Your task to perform on an android device: Open accessibility settings Image 0: 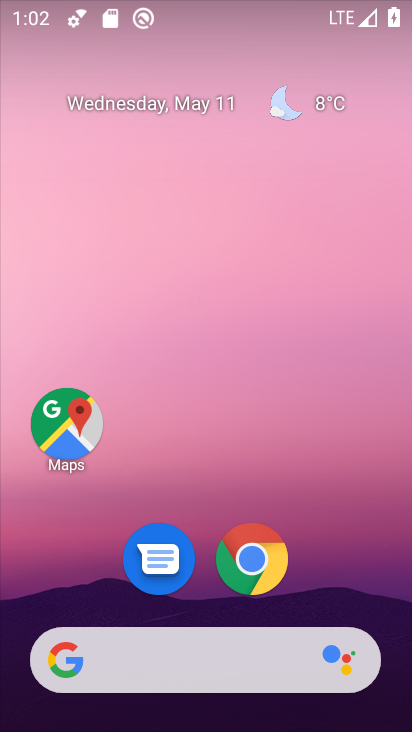
Step 0: drag from (221, 720) to (170, 182)
Your task to perform on an android device: Open accessibility settings Image 1: 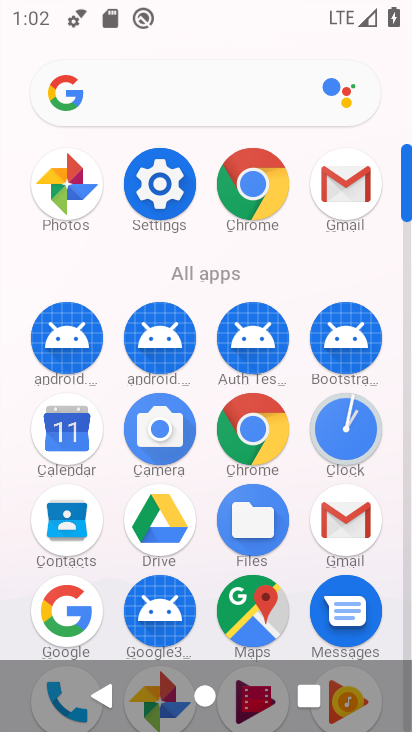
Step 1: click (170, 196)
Your task to perform on an android device: Open accessibility settings Image 2: 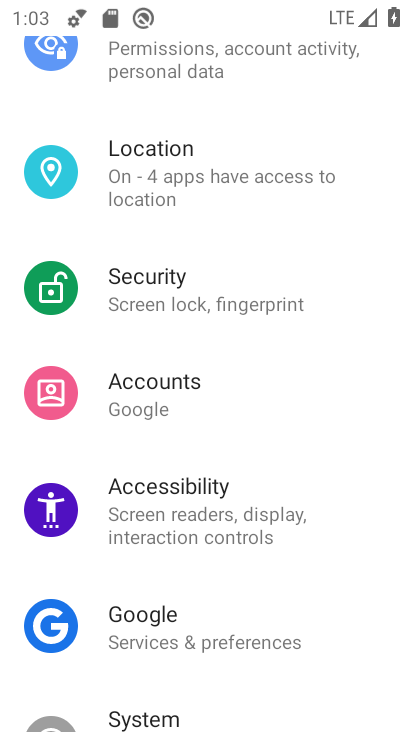
Step 2: click (153, 507)
Your task to perform on an android device: Open accessibility settings Image 3: 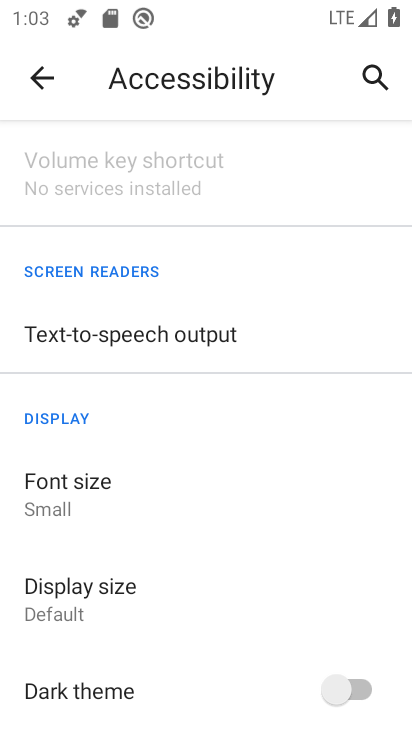
Step 3: task complete